Your task to perform on an android device: Go to Wikipedia Image 0: 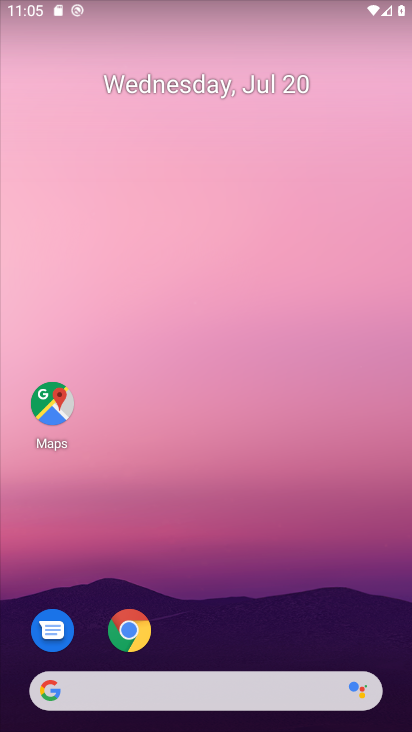
Step 0: drag from (296, 562) to (215, 157)
Your task to perform on an android device: Go to Wikipedia Image 1: 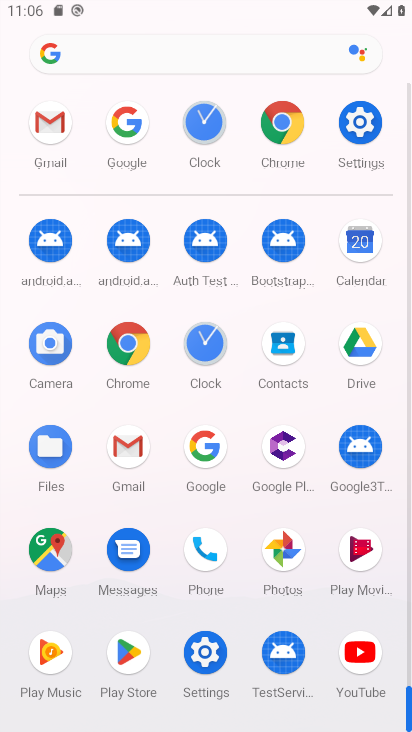
Step 1: click (288, 124)
Your task to perform on an android device: Go to Wikipedia Image 2: 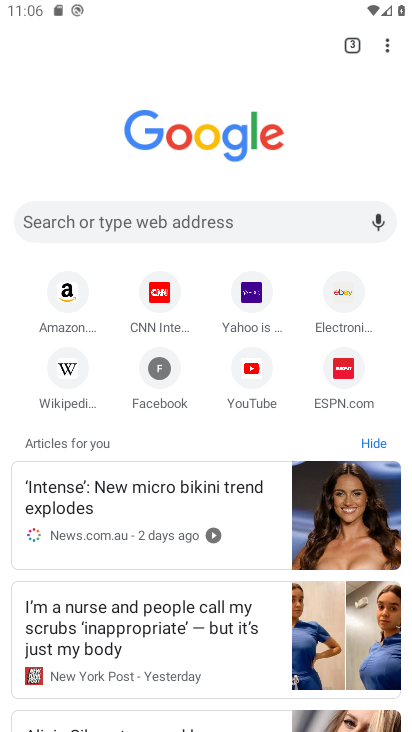
Step 2: click (72, 361)
Your task to perform on an android device: Go to Wikipedia Image 3: 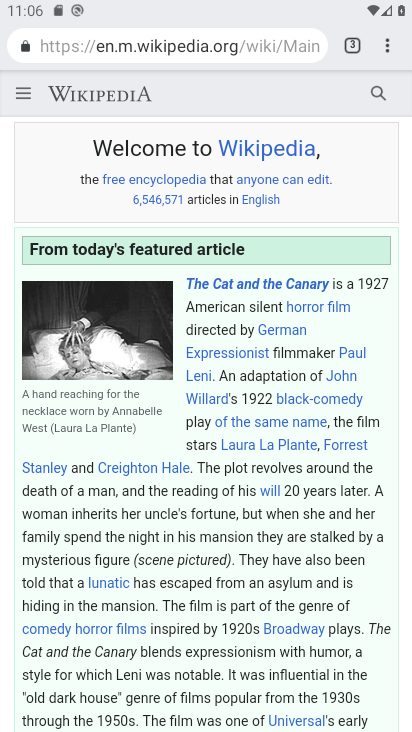
Step 3: task complete